Your task to perform on an android device: Is it going to rain today? Image 0: 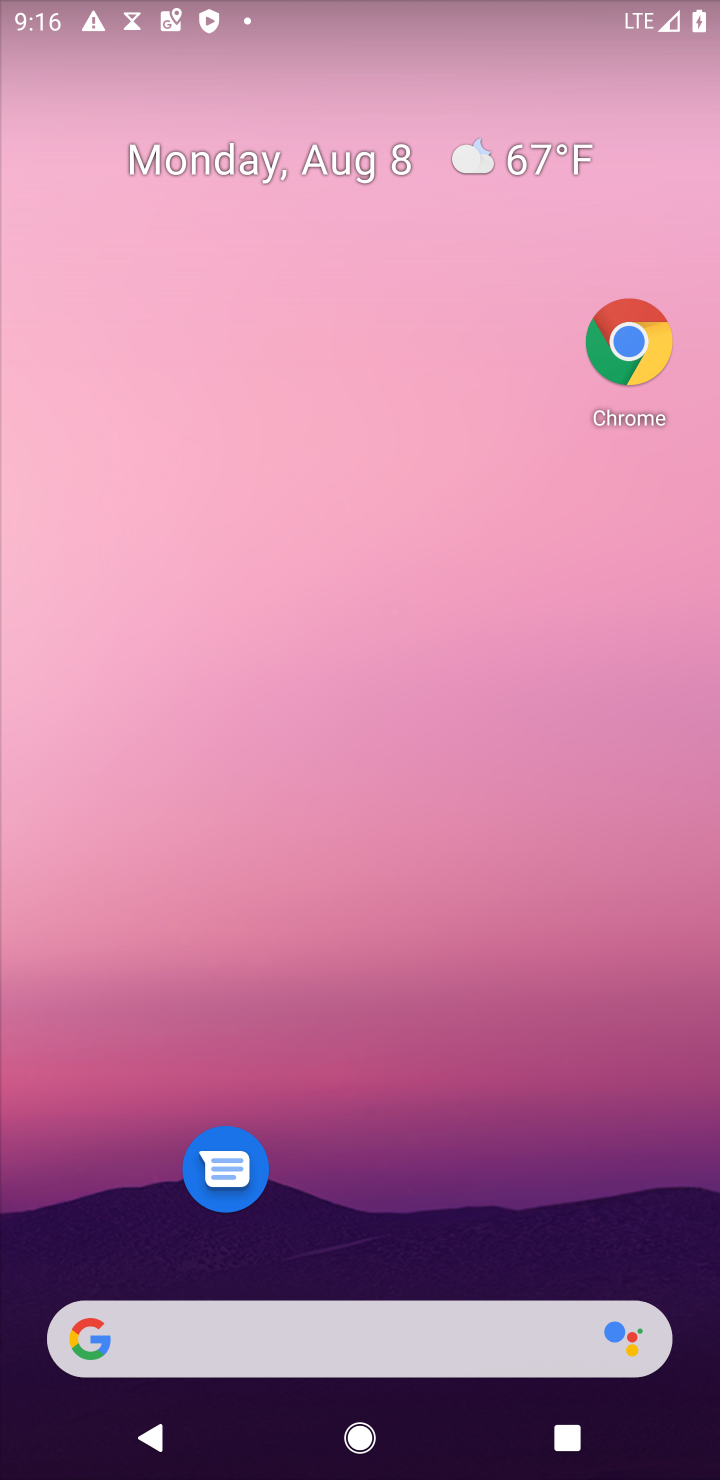
Step 0: click (331, 1364)
Your task to perform on an android device: Is it going to rain today? Image 1: 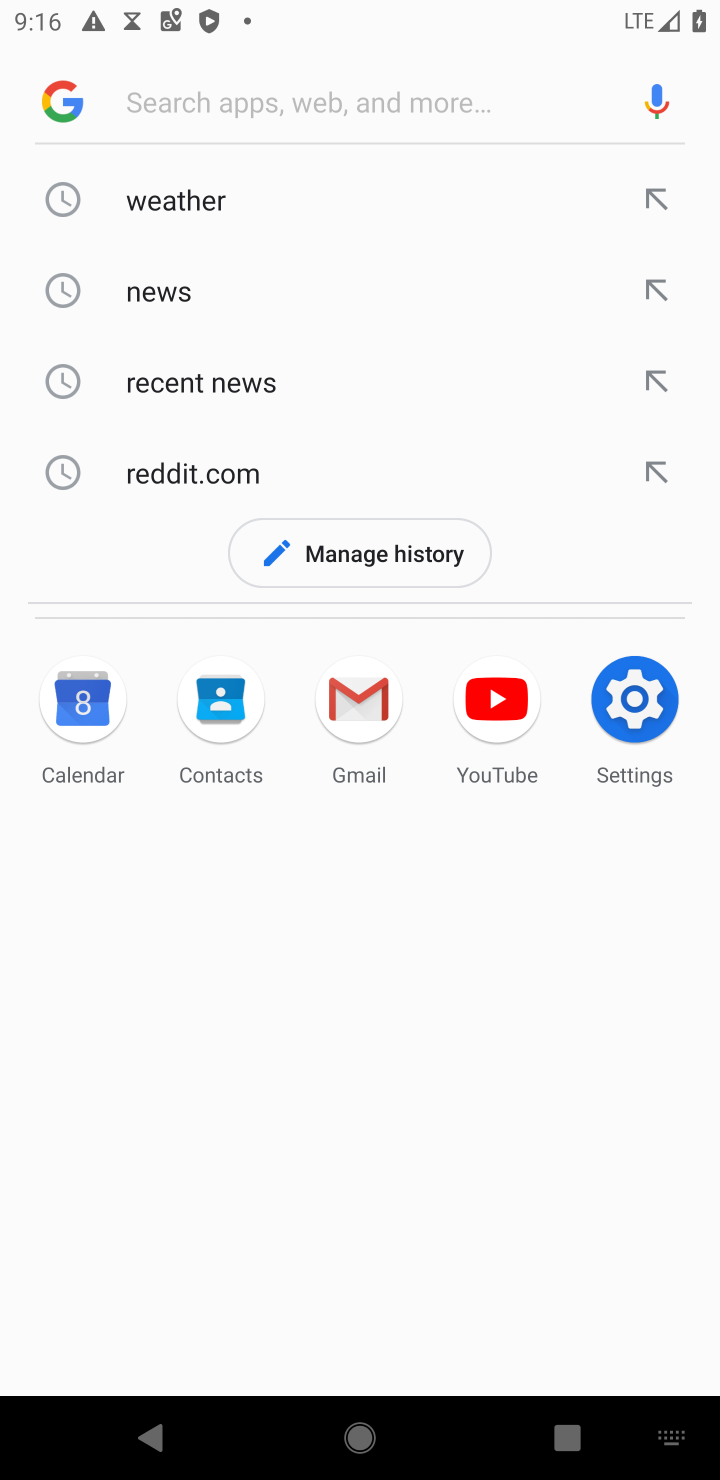
Step 1: click (217, 100)
Your task to perform on an android device: Is it going to rain today? Image 2: 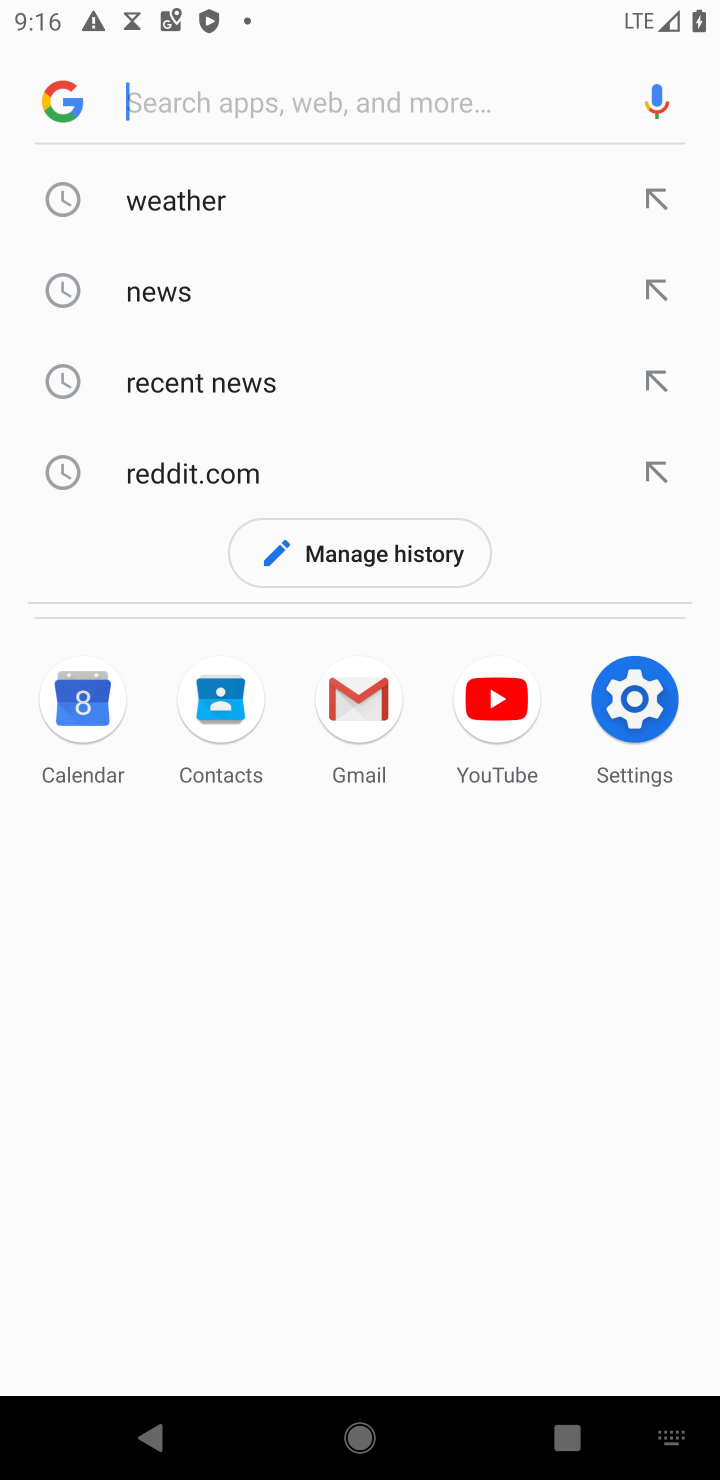
Step 2: click (213, 204)
Your task to perform on an android device: Is it going to rain today? Image 3: 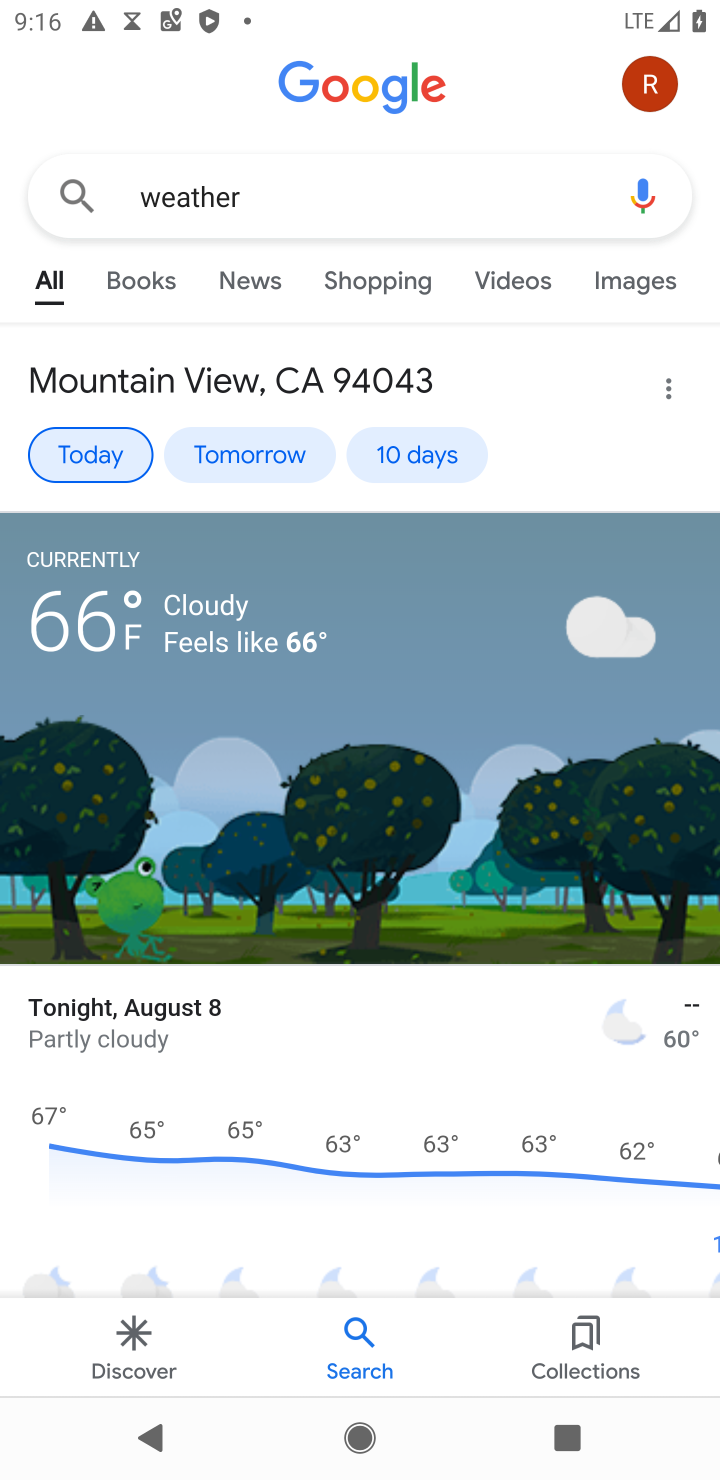
Step 3: task complete